Your task to perform on an android device: Open Maps and search for coffee Image 0: 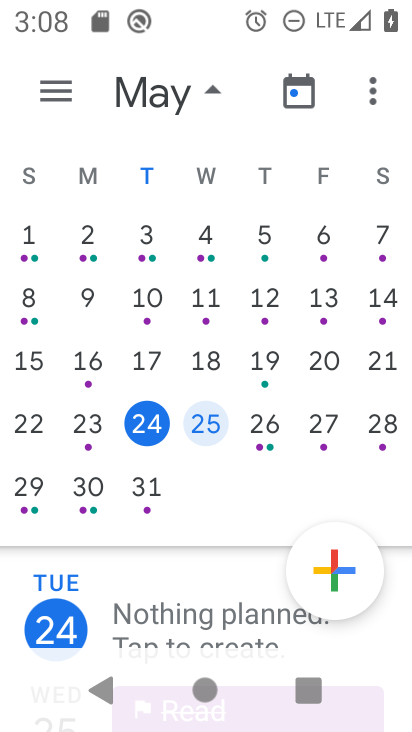
Step 0: press home button
Your task to perform on an android device: Open Maps and search for coffee Image 1: 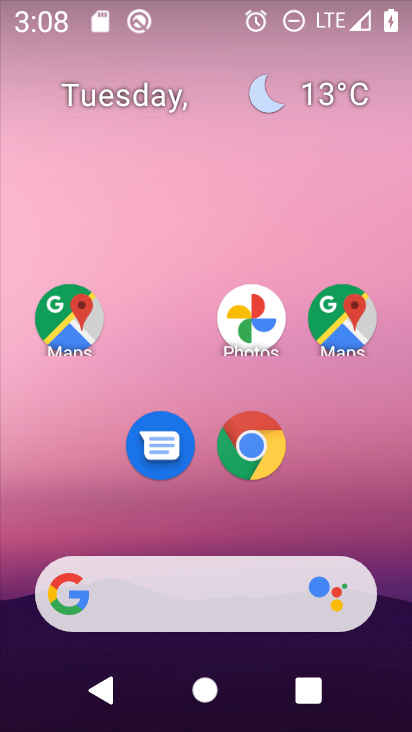
Step 1: drag from (380, 383) to (387, 215)
Your task to perform on an android device: Open Maps and search for coffee Image 2: 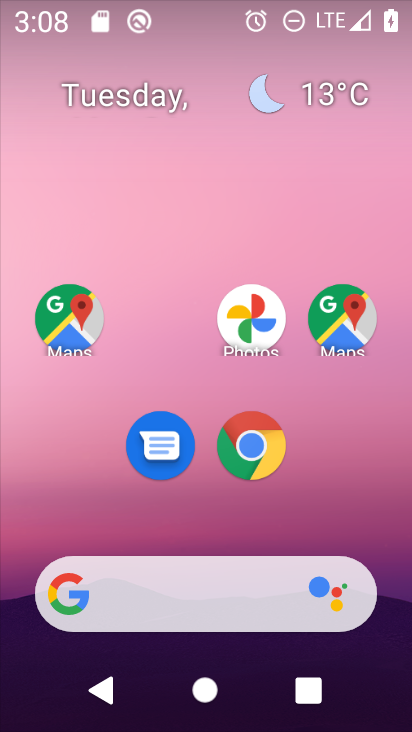
Step 2: drag from (362, 512) to (362, 154)
Your task to perform on an android device: Open Maps and search for coffee Image 3: 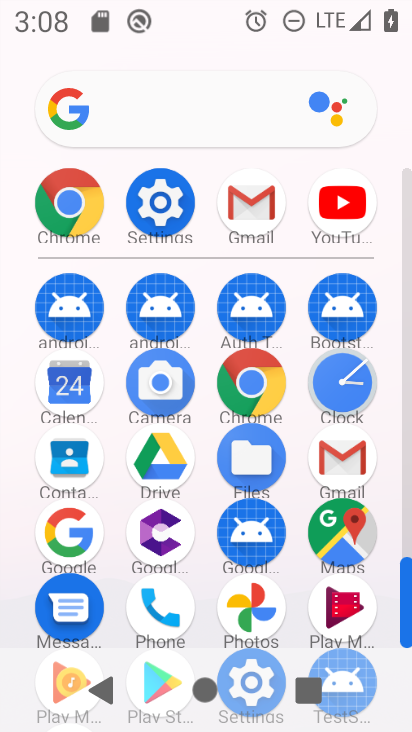
Step 3: click (323, 550)
Your task to perform on an android device: Open Maps and search for coffee Image 4: 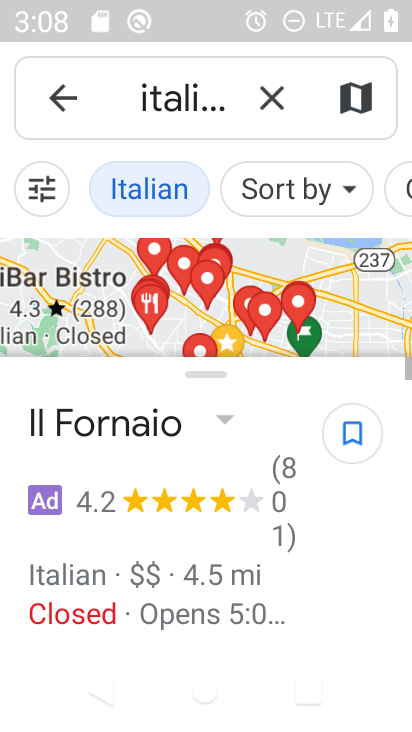
Step 4: click (271, 101)
Your task to perform on an android device: Open Maps and search for coffee Image 5: 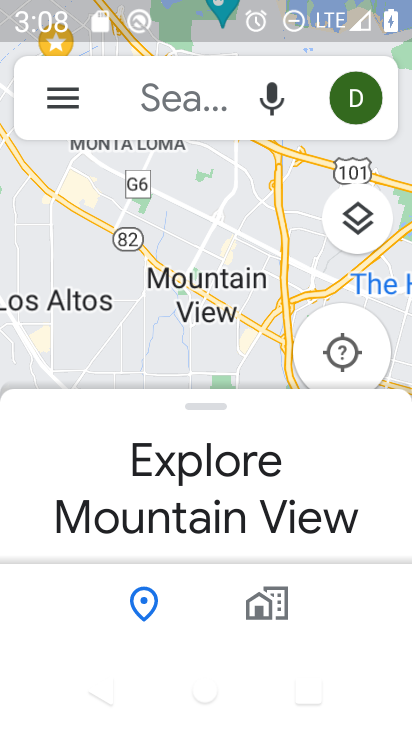
Step 5: click (199, 112)
Your task to perform on an android device: Open Maps and search for coffee Image 6: 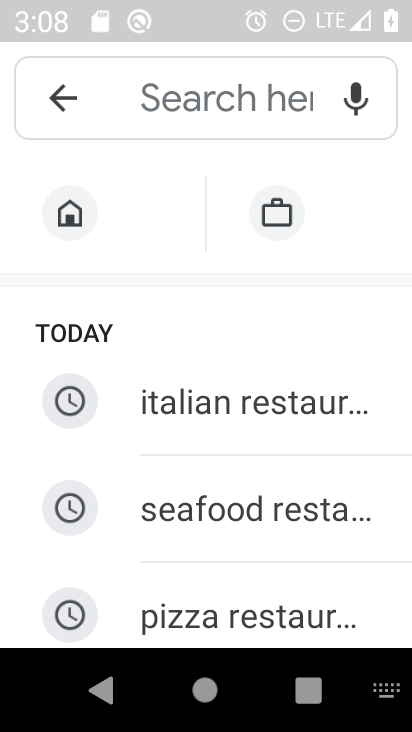
Step 6: type "xoffee"
Your task to perform on an android device: Open Maps and search for coffee Image 7: 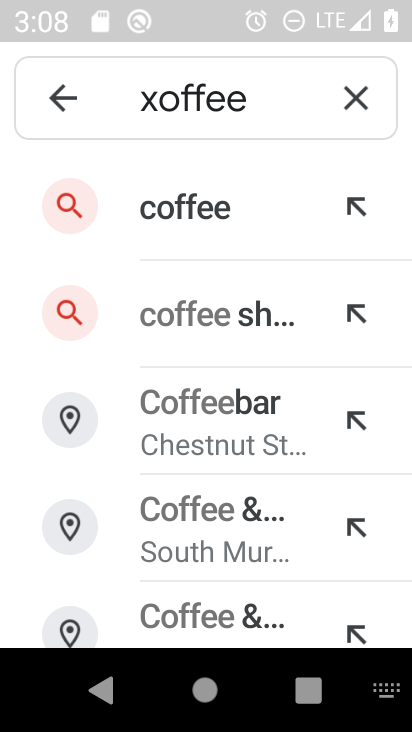
Step 7: click (249, 231)
Your task to perform on an android device: Open Maps and search for coffee Image 8: 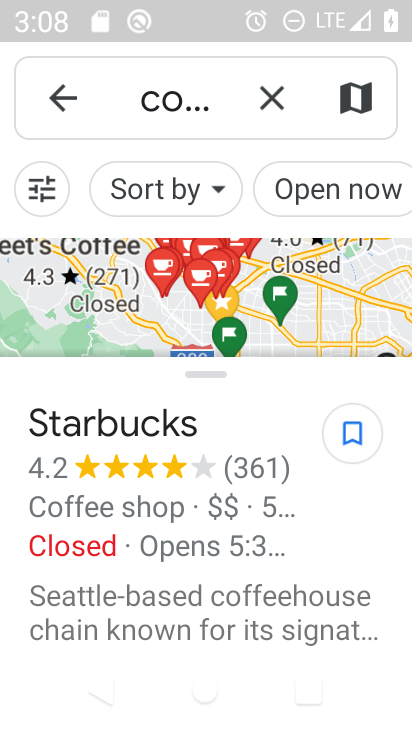
Step 8: task complete